Your task to perform on an android device: Open Wikipedia Image 0: 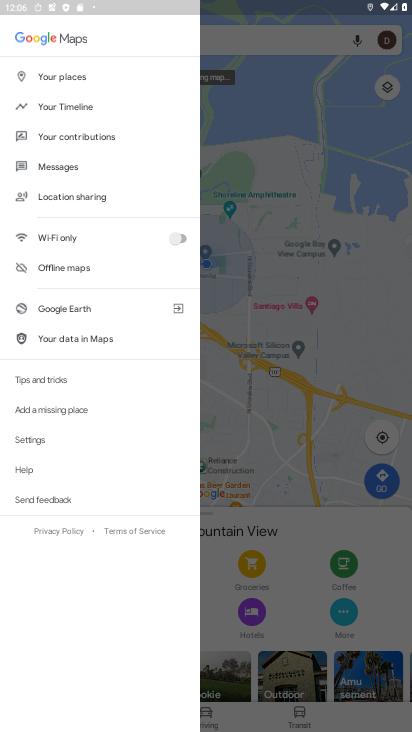
Step 0: press home button
Your task to perform on an android device: Open Wikipedia Image 1: 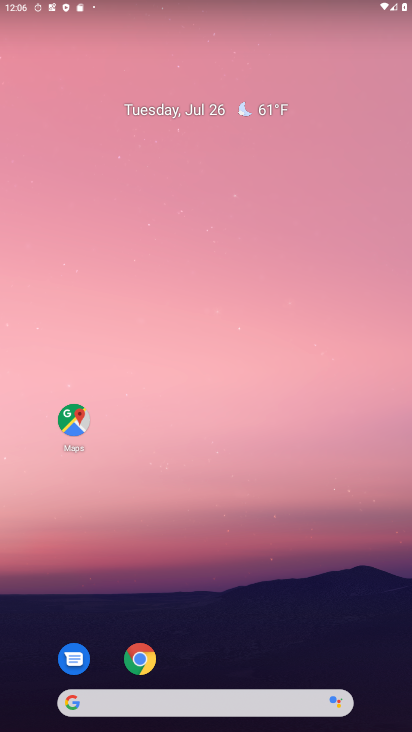
Step 1: click (107, 700)
Your task to perform on an android device: Open Wikipedia Image 2: 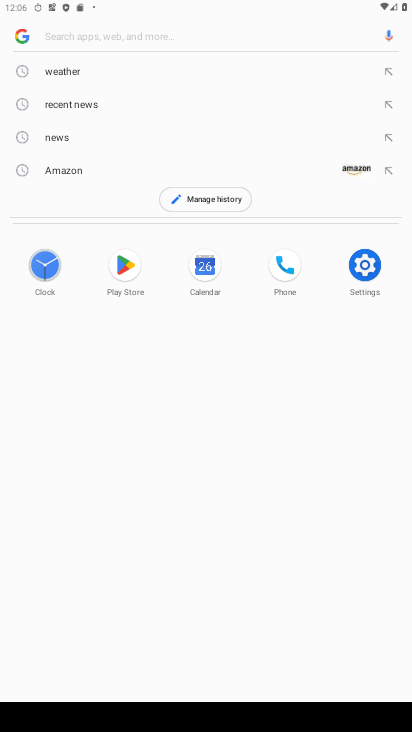
Step 2: type "Wikipedia"
Your task to perform on an android device: Open Wikipedia Image 3: 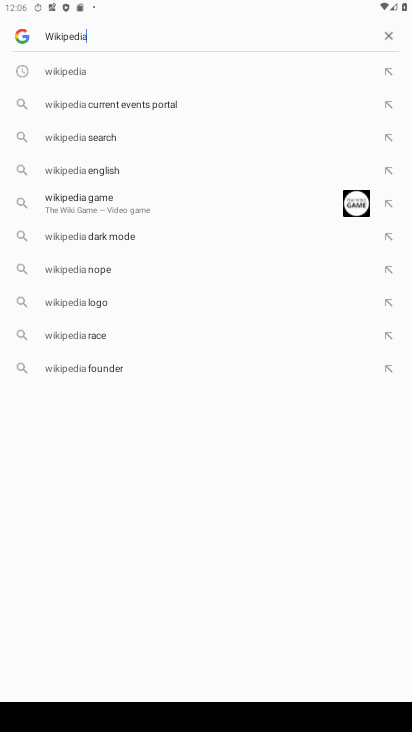
Step 3: click (50, 74)
Your task to perform on an android device: Open Wikipedia Image 4: 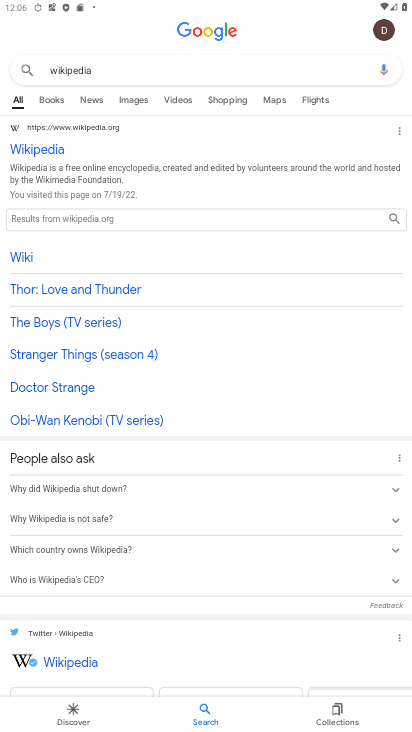
Step 4: task complete